Your task to perform on an android device: Do I have any events today? Image 0: 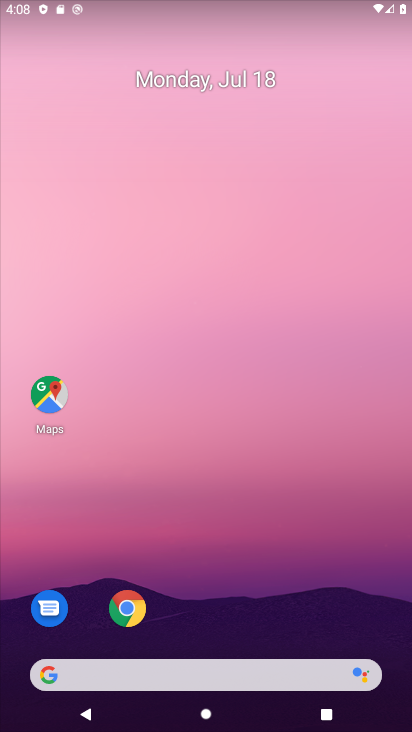
Step 0: drag from (328, 604) to (305, 18)
Your task to perform on an android device: Do I have any events today? Image 1: 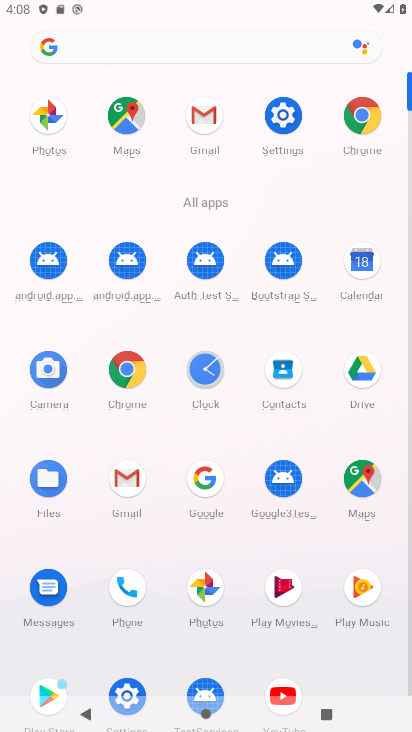
Step 1: click (354, 267)
Your task to perform on an android device: Do I have any events today? Image 2: 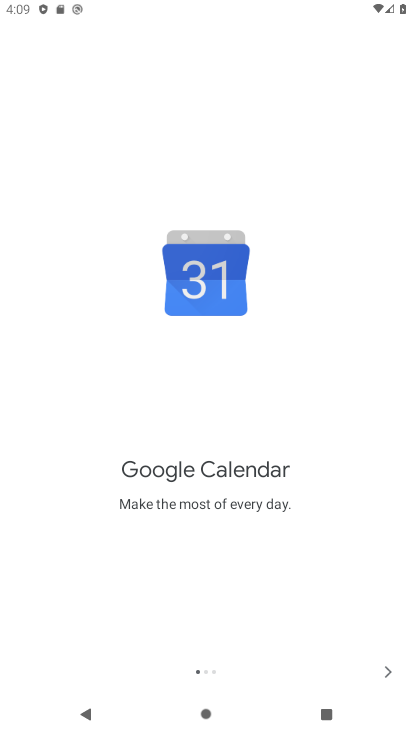
Step 2: click (380, 655)
Your task to perform on an android device: Do I have any events today? Image 3: 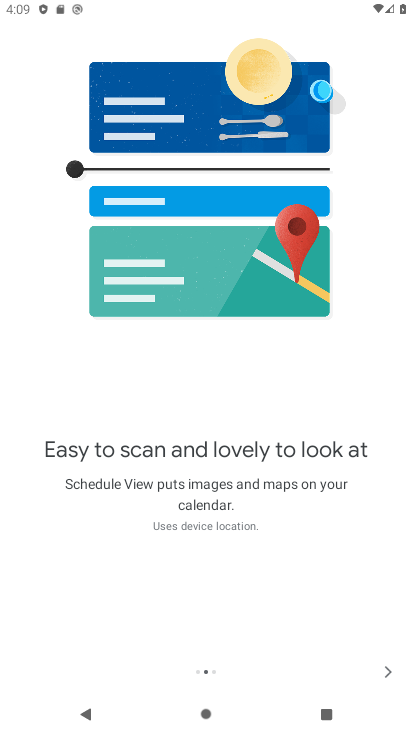
Step 3: click (376, 685)
Your task to perform on an android device: Do I have any events today? Image 4: 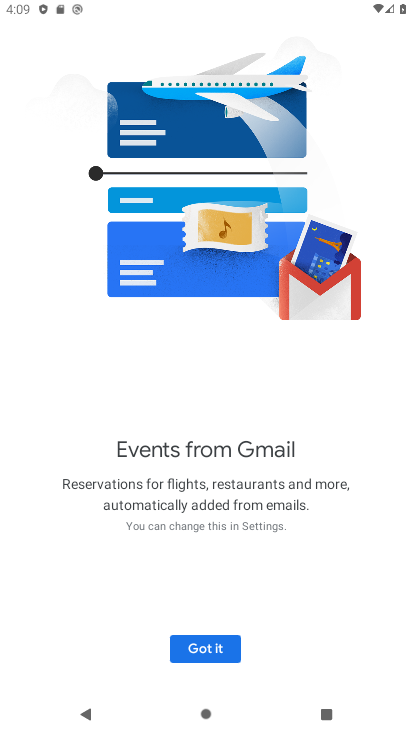
Step 4: click (226, 650)
Your task to perform on an android device: Do I have any events today? Image 5: 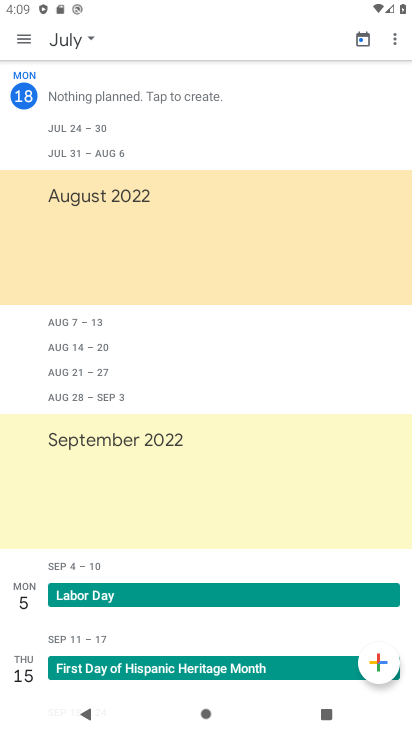
Step 5: click (15, 89)
Your task to perform on an android device: Do I have any events today? Image 6: 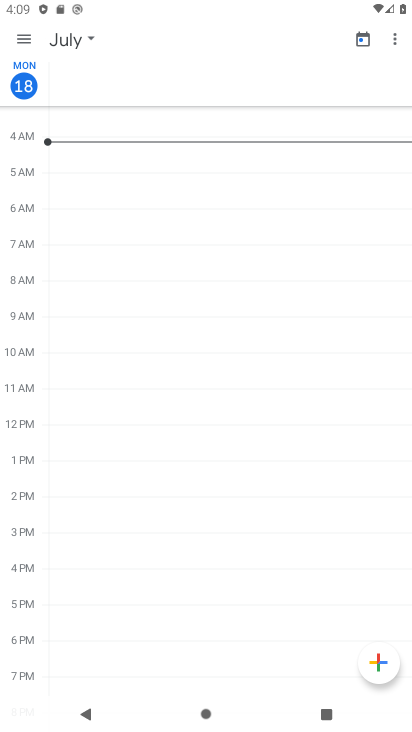
Step 6: task complete